Your task to perform on an android device: Open ESPN.com Image 0: 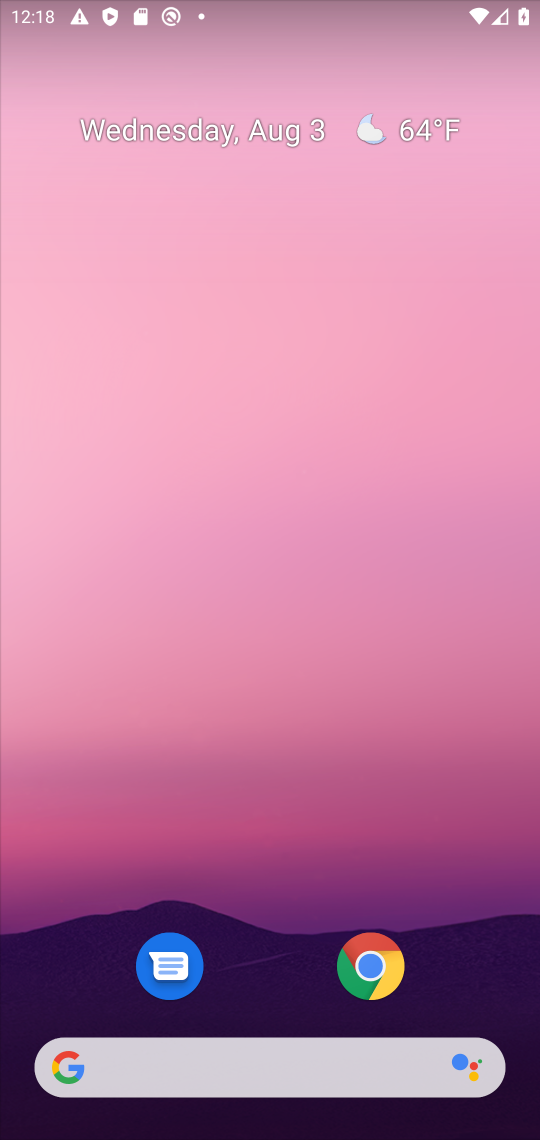
Step 0: click (370, 960)
Your task to perform on an android device: Open ESPN.com Image 1: 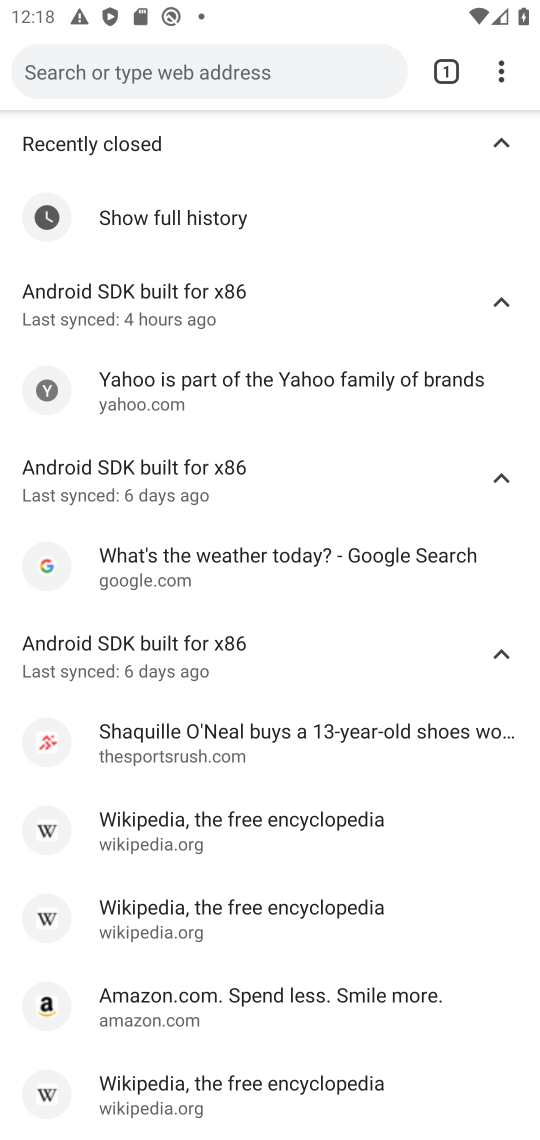
Step 1: click (461, 69)
Your task to perform on an android device: Open ESPN.com Image 2: 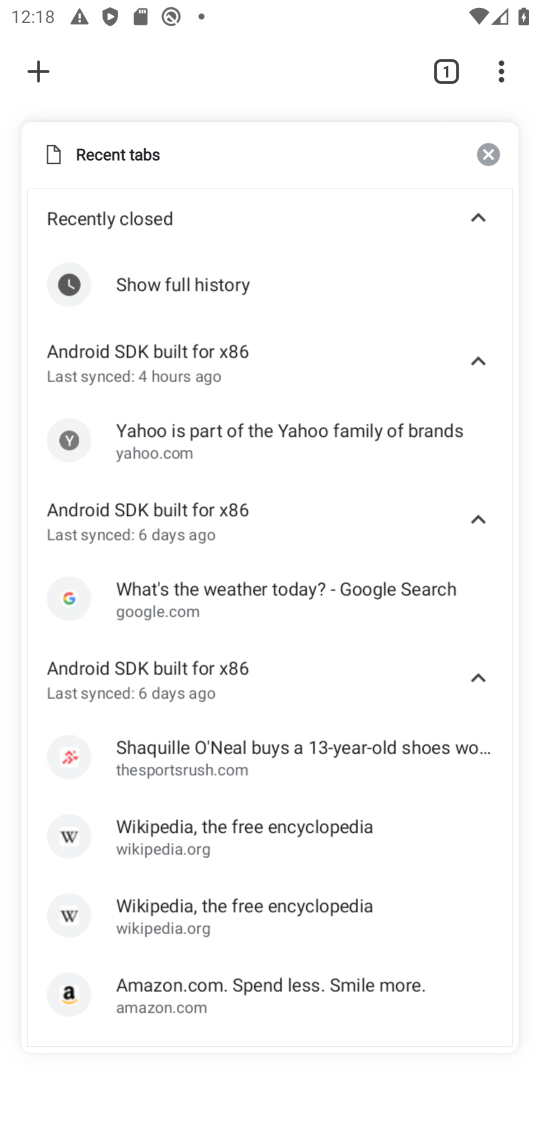
Step 2: click (32, 64)
Your task to perform on an android device: Open ESPN.com Image 3: 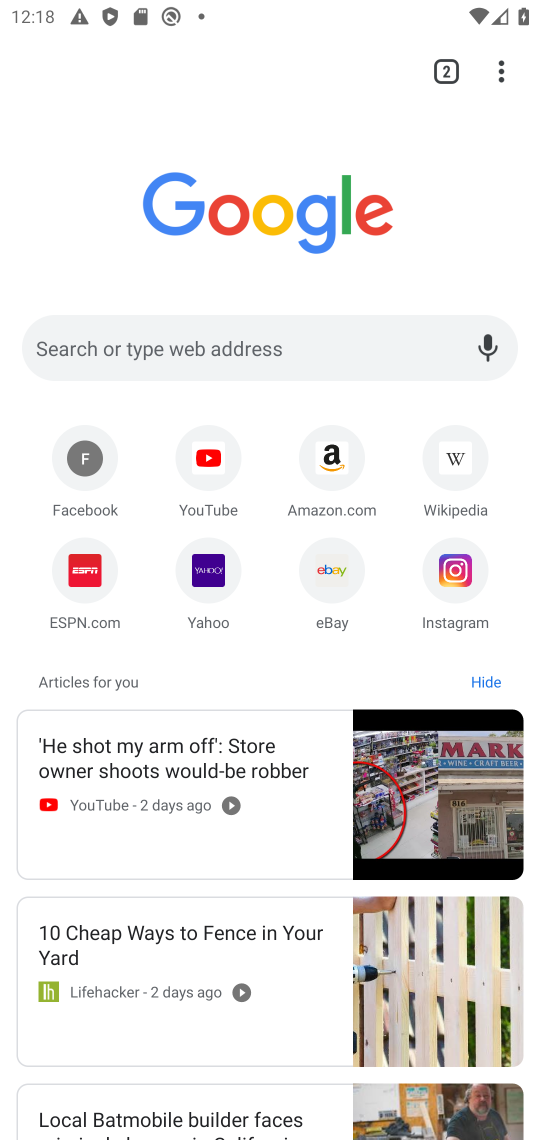
Step 3: click (88, 587)
Your task to perform on an android device: Open ESPN.com Image 4: 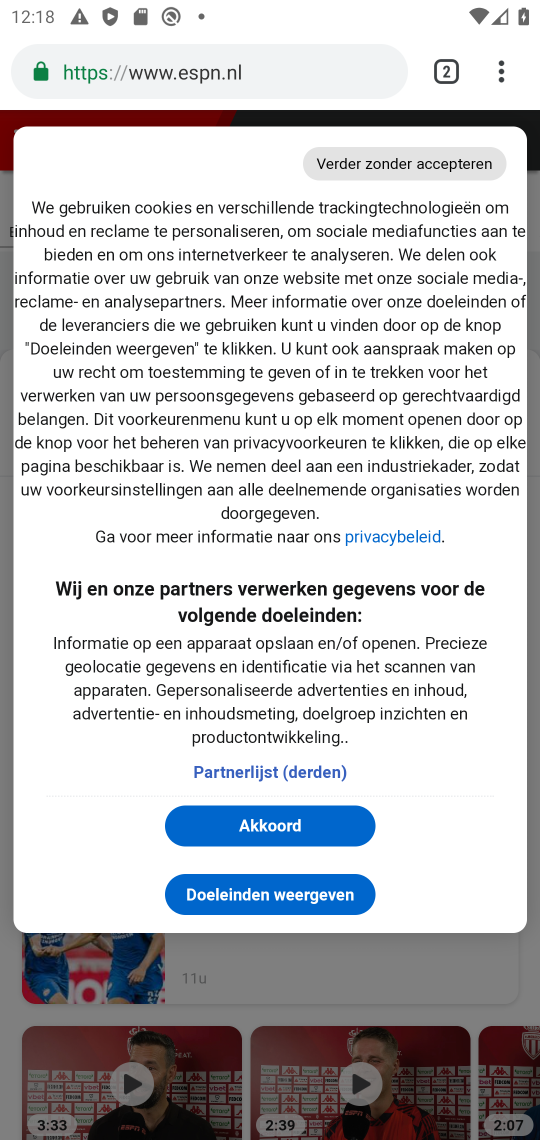
Step 4: task complete